Your task to perform on an android device: open app "Firefox Browser" (install if not already installed), go to login, and select forgot password Image 0: 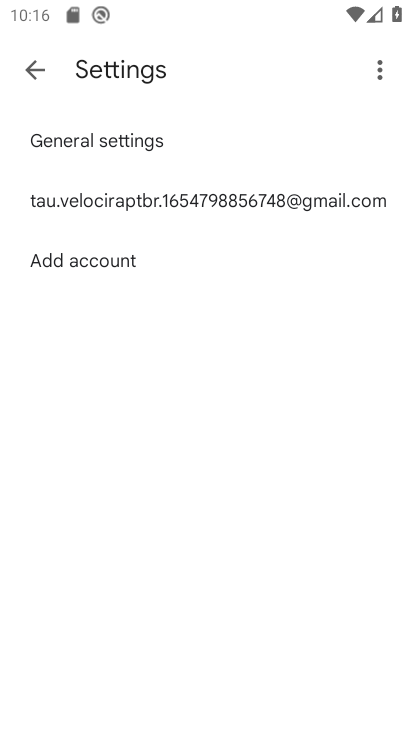
Step 0: press home button
Your task to perform on an android device: open app "Firefox Browser" (install if not already installed), go to login, and select forgot password Image 1: 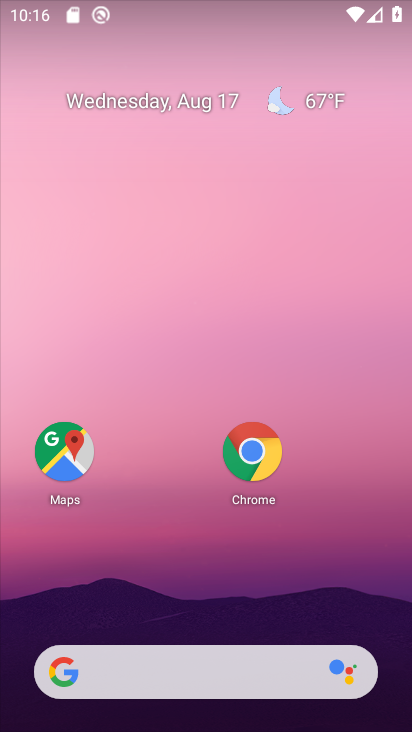
Step 1: drag from (180, 583) to (158, 233)
Your task to perform on an android device: open app "Firefox Browser" (install if not already installed), go to login, and select forgot password Image 2: 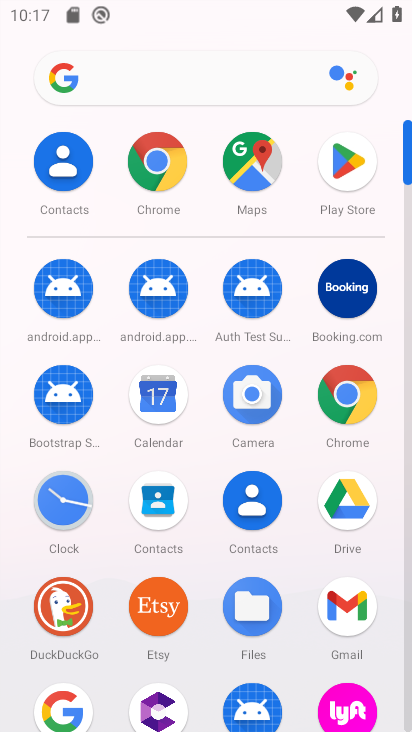
Step 2: click (334, 168)
Your task to perform on an android device: open app "Firefox Browser" (install if not already installed), go to login, and select forgot password Image 3: 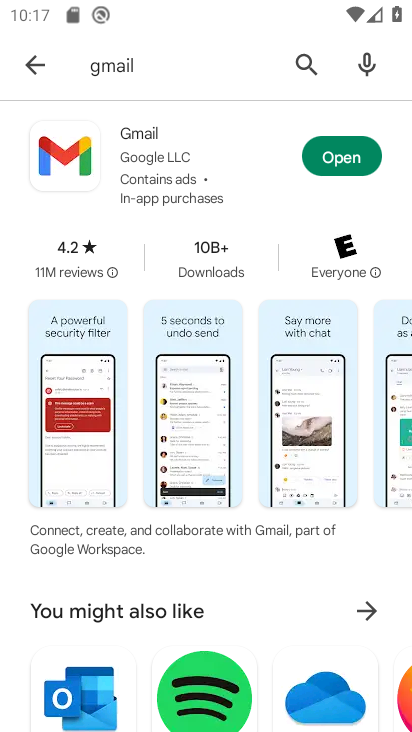
Step 3: click (34, 70)
Your task to perform on an android device: open app "Firefox Browser" (install if not already installed), go to login, and select forgot password Image 4: 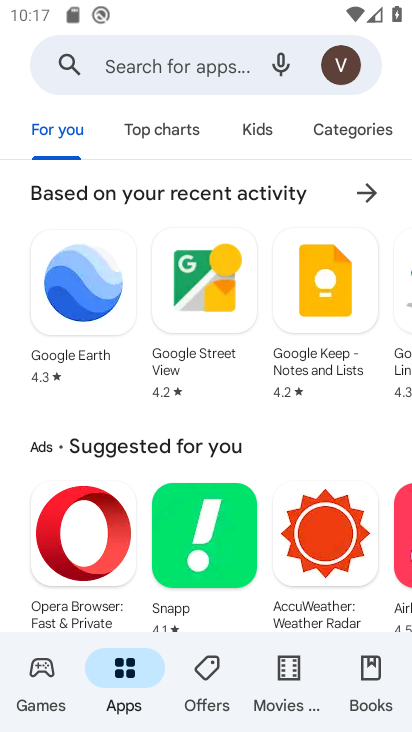
Step 4: click (157, 65)
Your task to perform on an android device: open app "Firefox Browser" (install if not already installed), go to login, and select forgot password Image 5: 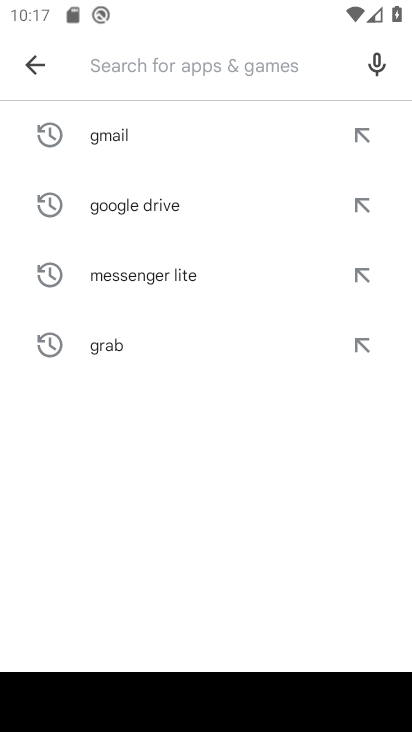
Step 5: type "Firefox Browser"
Your task to perform on an android device: open app "Firefox Browser" (install if not already installed), go to login, and select forgot password Image 6: 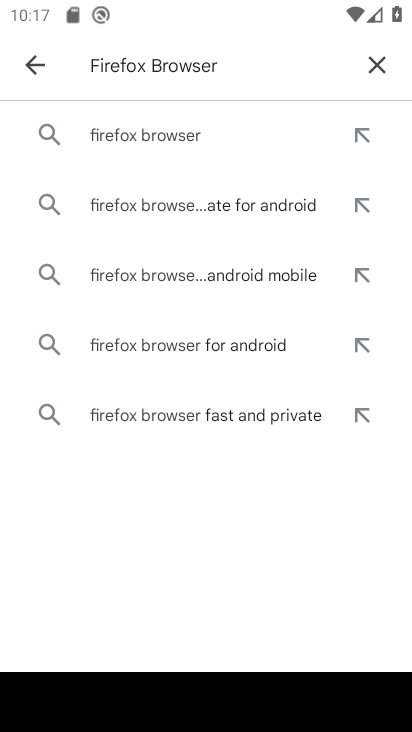
Step 6: click (167, 142)
Your task to perform on an android device: open app "Firefox Browser" (install if not already installed), go to login, and select forgot password Image 7: 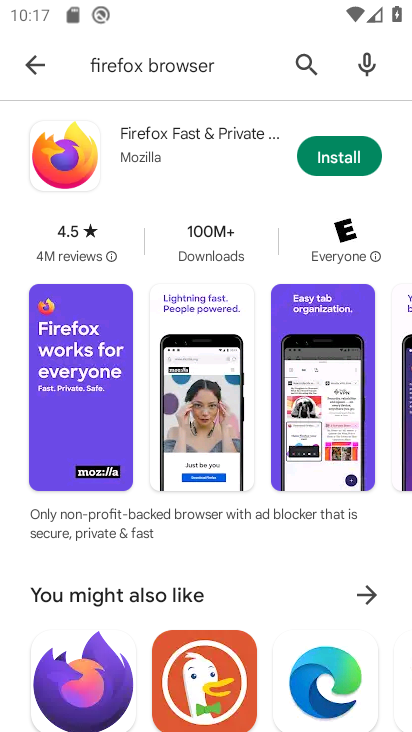
Step 7: click (334, 164)
Your task to perform on an android device: open app "Firefox Browser" (install if not already installed), go to login, and select forgot password Image 8: 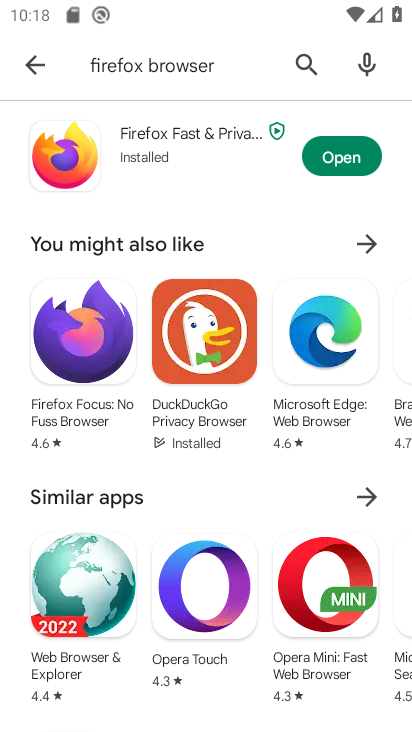
Step 8: click (338, 151)
Your task to perform on an android device: open app "Firefox Browser" (install if not already installed), go to login, and select forgot password Image 9: 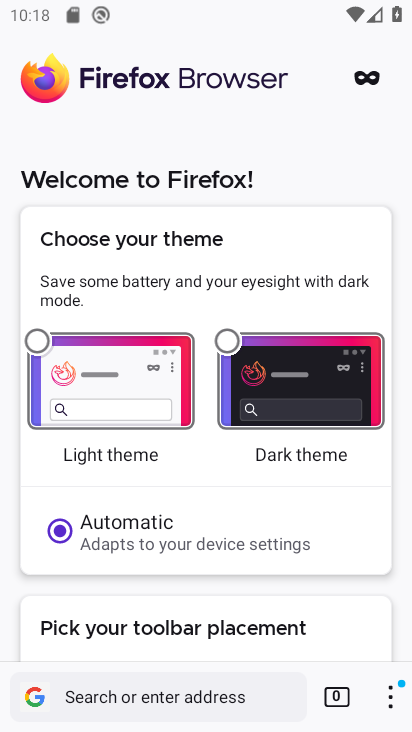
Step 9: task complete